Your task to perform on an android device: Find coffee shops on Maps Image 0: 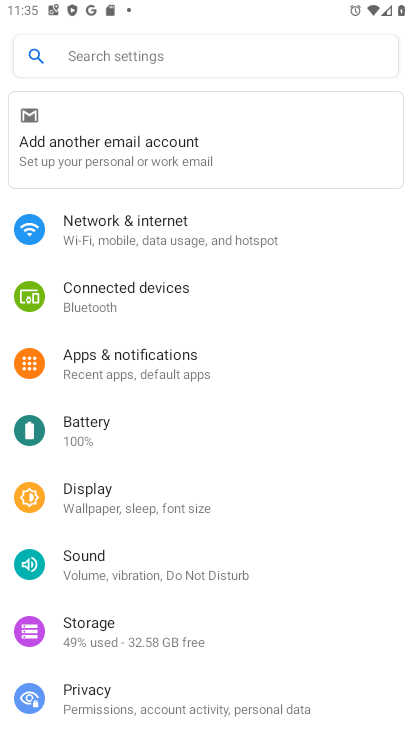
Step 0: press home button
Your task to perform on an android device: Find coffee shops on Maps Image 1: 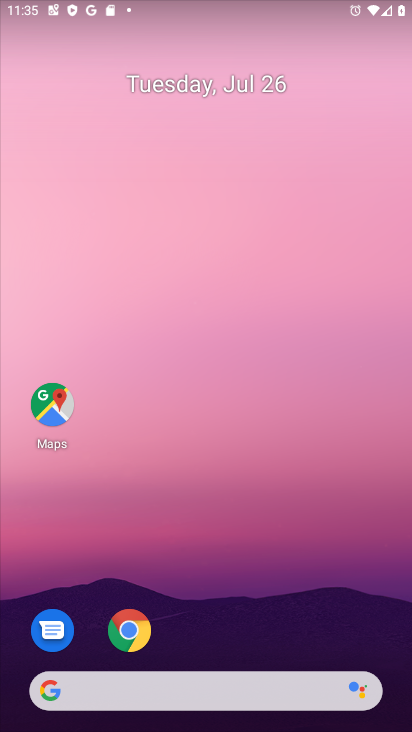
Step 1: click (46, 411)
Your task to perform on an android device: Find coffee shops on Maps Image 2: 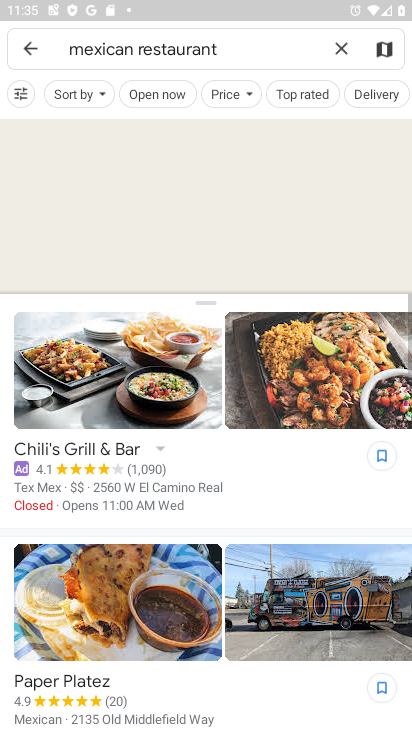
Step 2: click (343, 44)
Your task to perform on an android device: Find coffee shops on Maps Image 3: 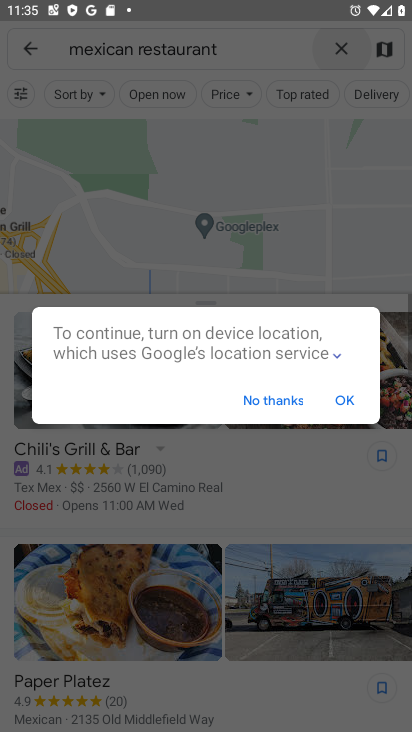
Step 3: click (345, 396)
Your task to perform on an android device: Find coffee shops on Maps Image 4: 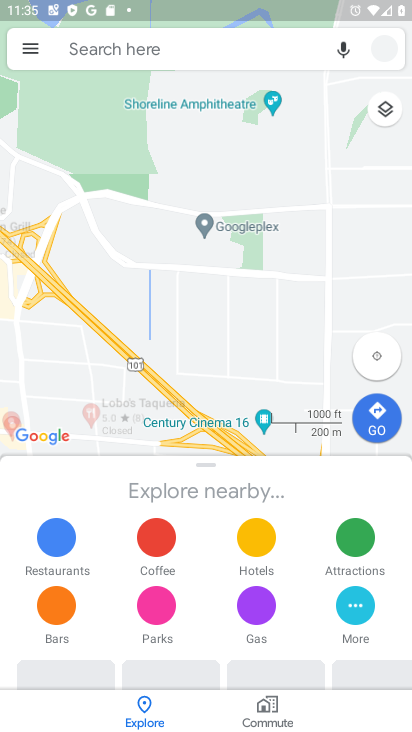
Step 4: click (181, 44)
Your task to perform on an android device: Find coffee shops on Maps Image 5: 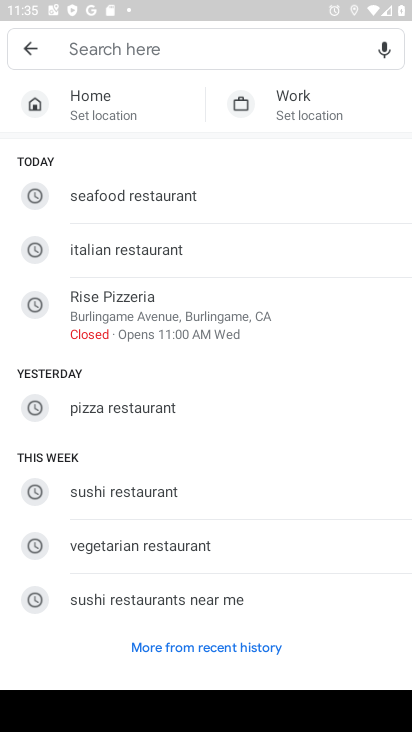
Step 5: type "coffee shops"
Your task to perform on an android device: Find coffee shops on Maps Image 6: 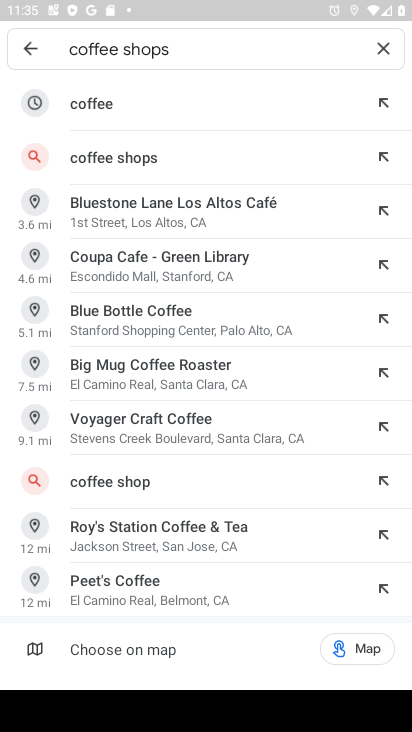
Step 6: click (187, 151)
Your task to perform on an android device: Find coffee shops on Maps Image 7: 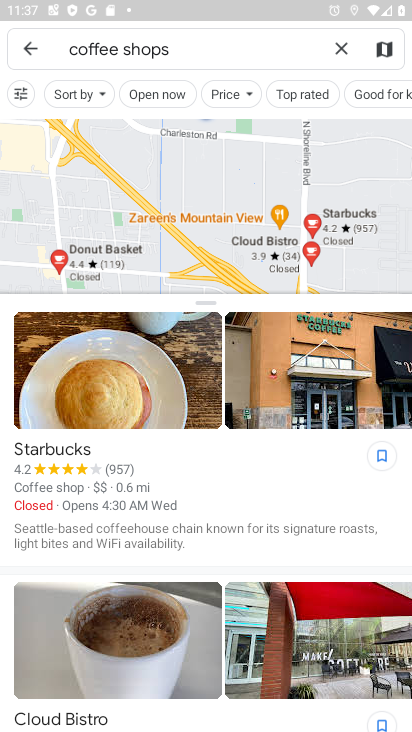
Step 7: task complete